Your task to perform on an android device: turn off location history Image 0: 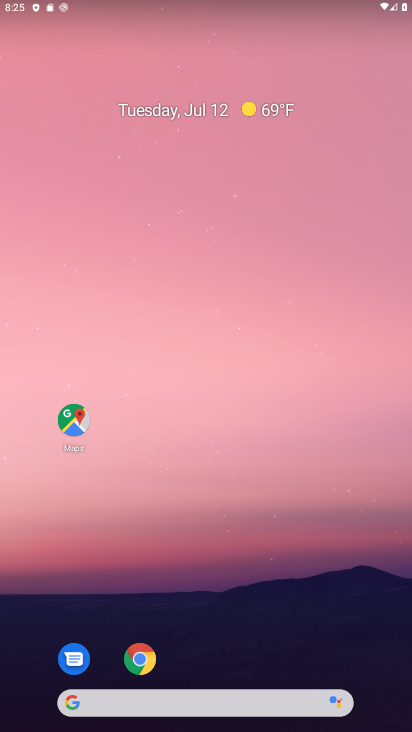
Step 0: drag from (231, 688) to (218, 301)
Your task to perform on an android device: turn off location history Image 1: 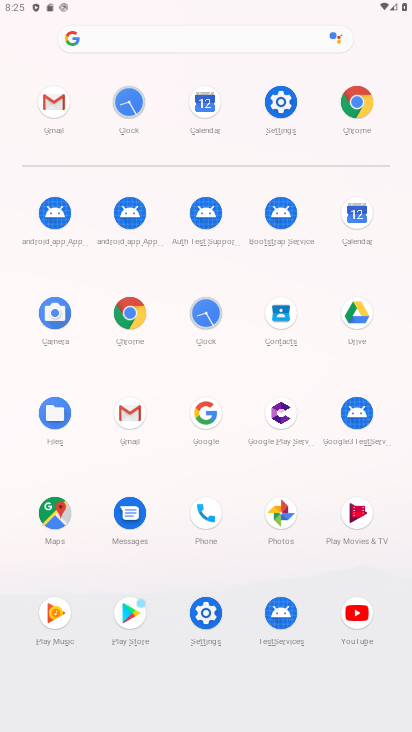
Step 1: click (282, 100)
Your task to perform on an android device: turn off location history Image 2: 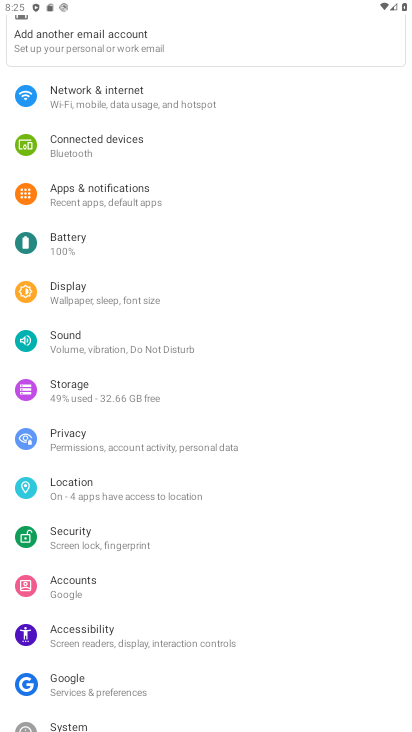
Step 2: click (73, 485)
Your task to perform on an android device: turn off location history Image 3: 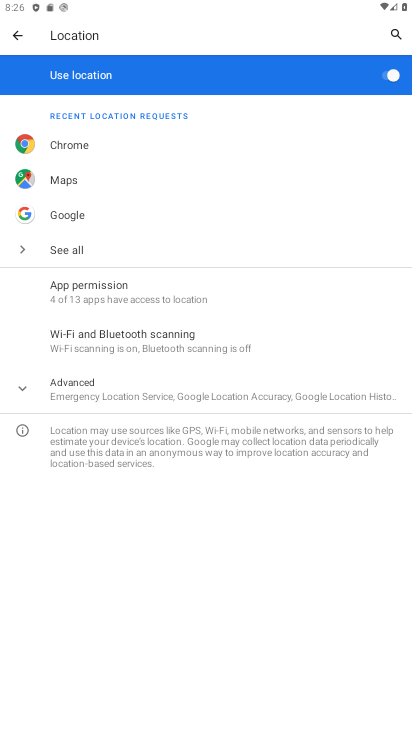
Step 3: click (91, 391)
Your task to perform on an android device: turn off location history Image 4: 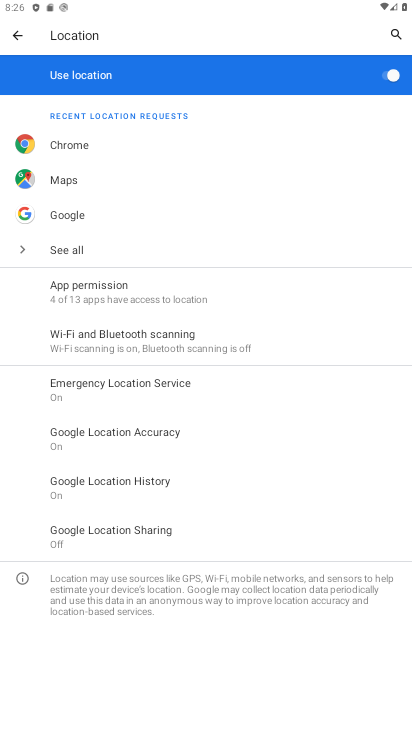
Step 4: click (95, 482)
Your task to perform on an android device: turn off location history Image 5: 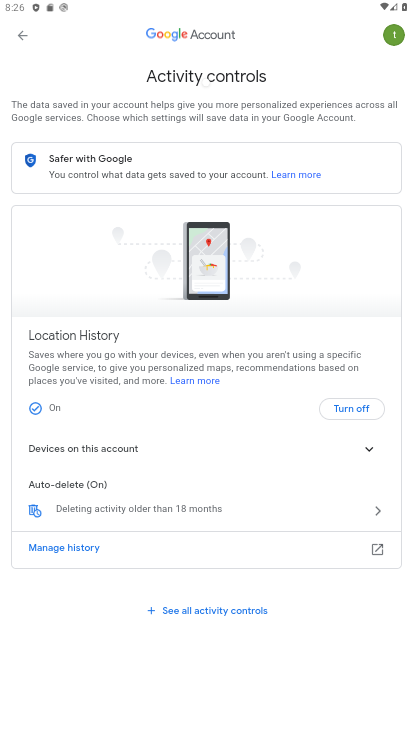
Step 5: click (337, 404)
Your task to perform on an android device: turn off location history Image 6: 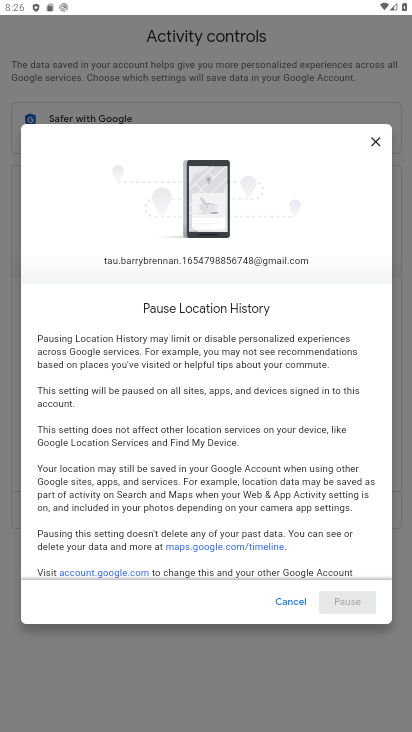
Step 6: drag from (318, 538) to (318, 321)
Your task to perform on an android device: turn off location history Image 7: 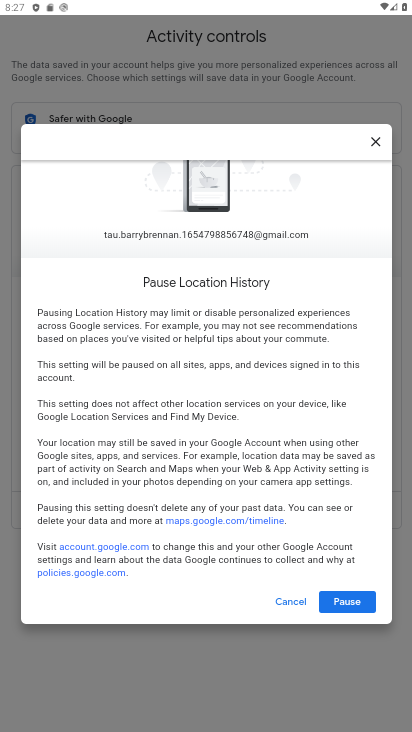
Step 7: click (355, 595)
Your task to perform on an android device: turn off location history Image 8: 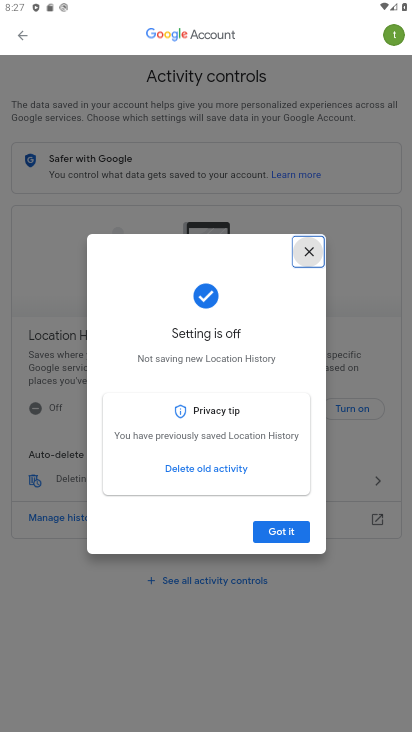
Step 8: click (282, 533)
Your task to perform on an android device: turn off location history Image 9: 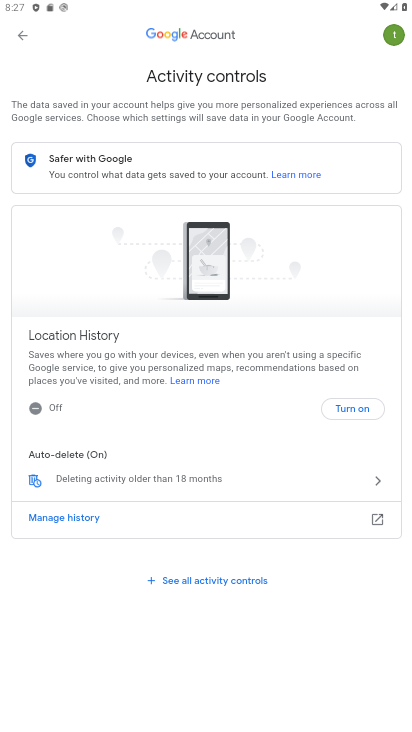
Step 9: task complete